Your task to perform on an android device: Open calendar and show me the second week of next month Image 0: 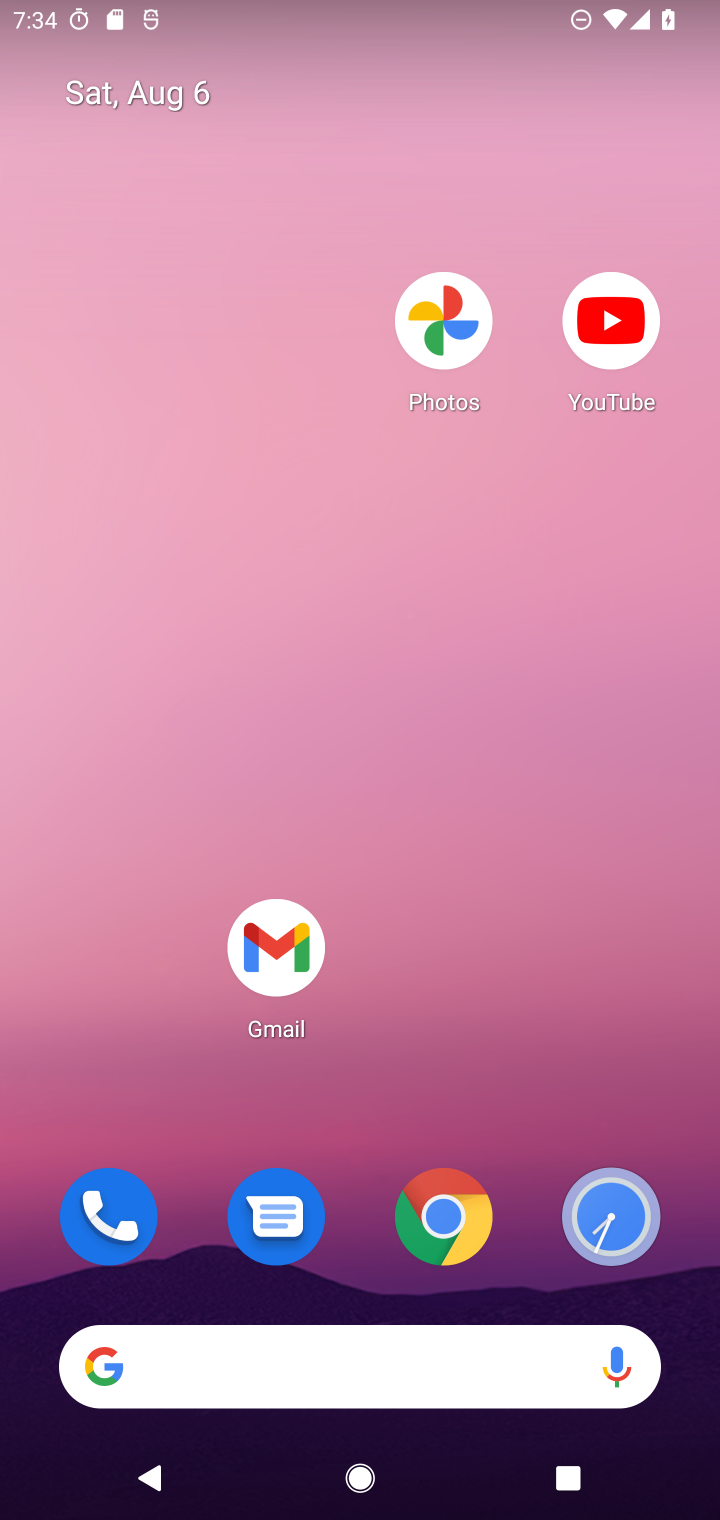
Step 0: drag from (506, 929) to (416, 40)
Your task to perform on an android device: Open calendar and show me the second week of next month Image 1: 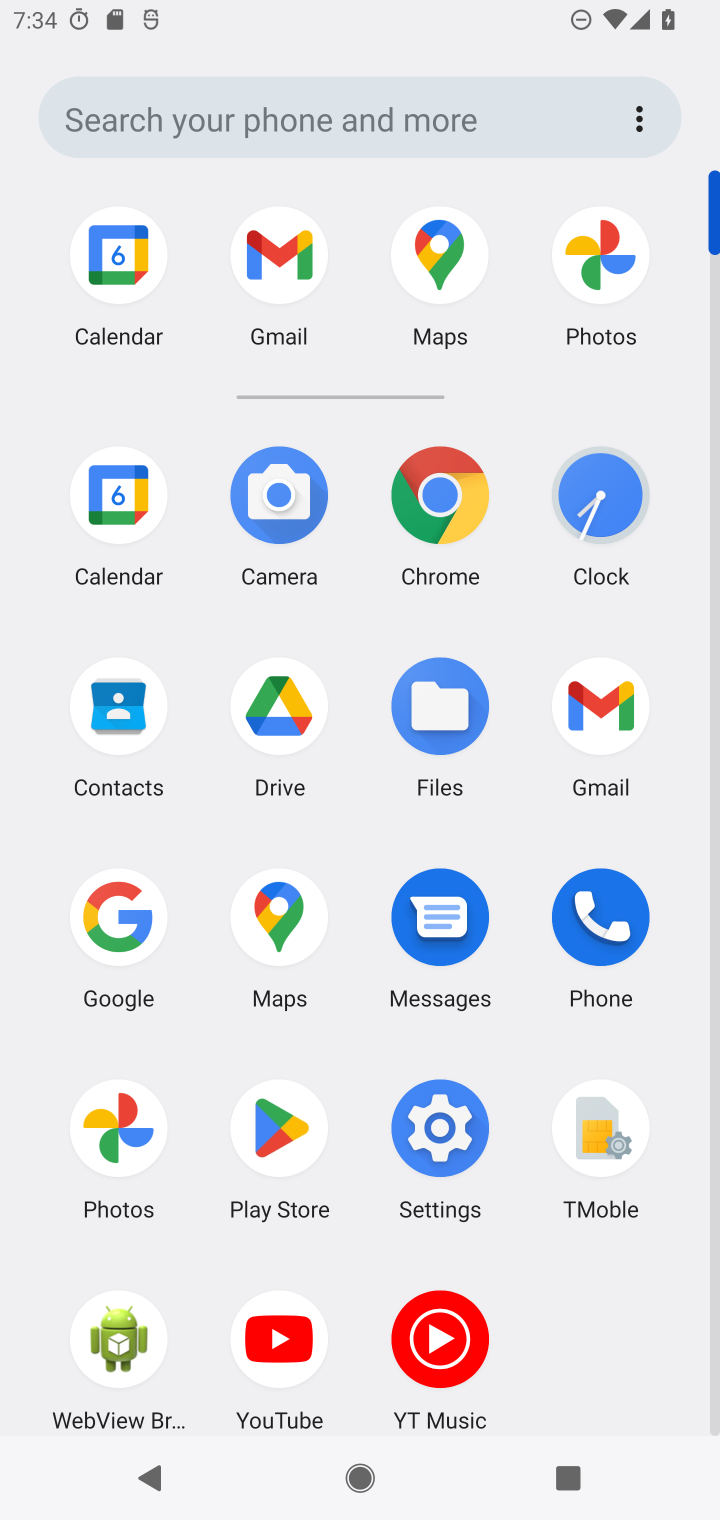
Step 1: click (116, 497)
Your task to perform on an android device: Open calendar and show me the second week of next month Image 2: 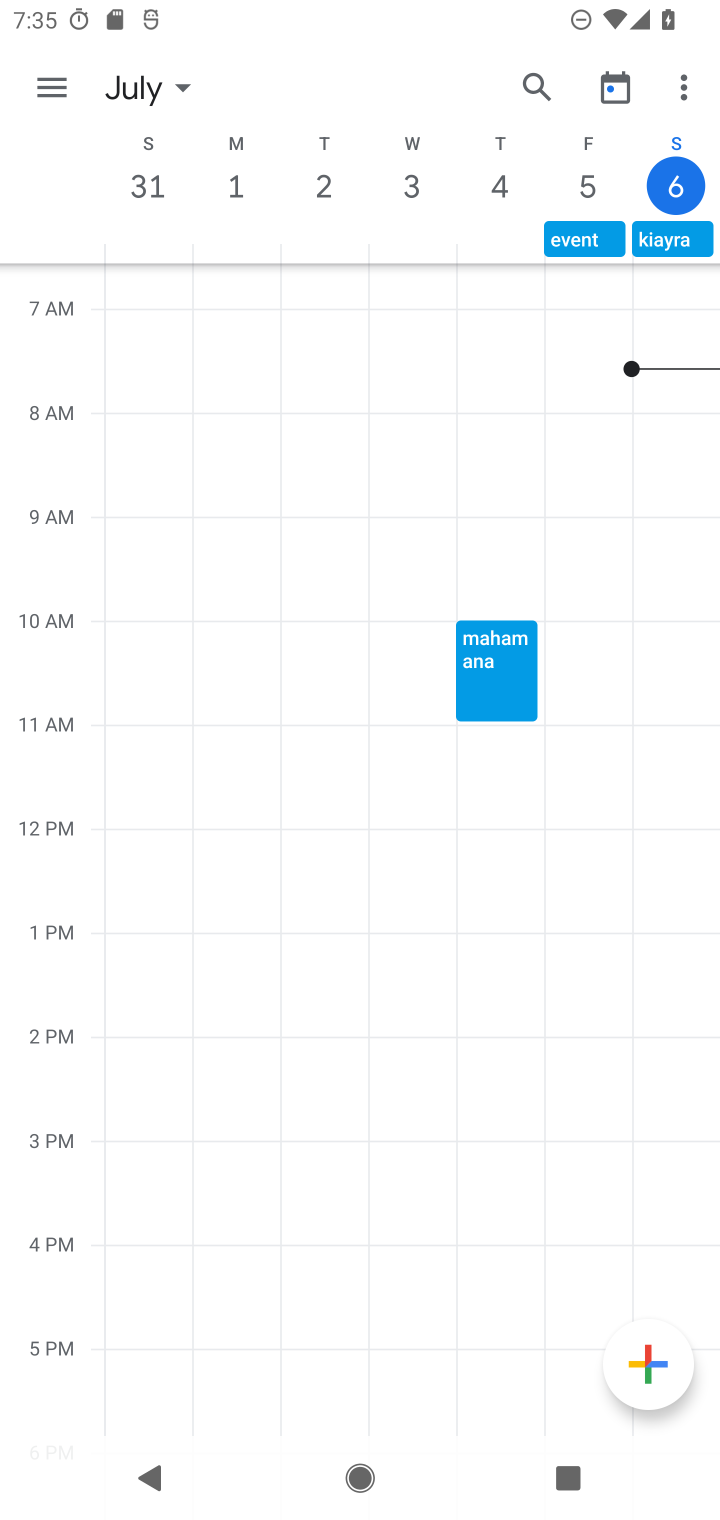
Step 2: drag from (646, 165) to (276, 143)
Your task to perform on an android device: Open calendar and show me the second week of next month Image 3: 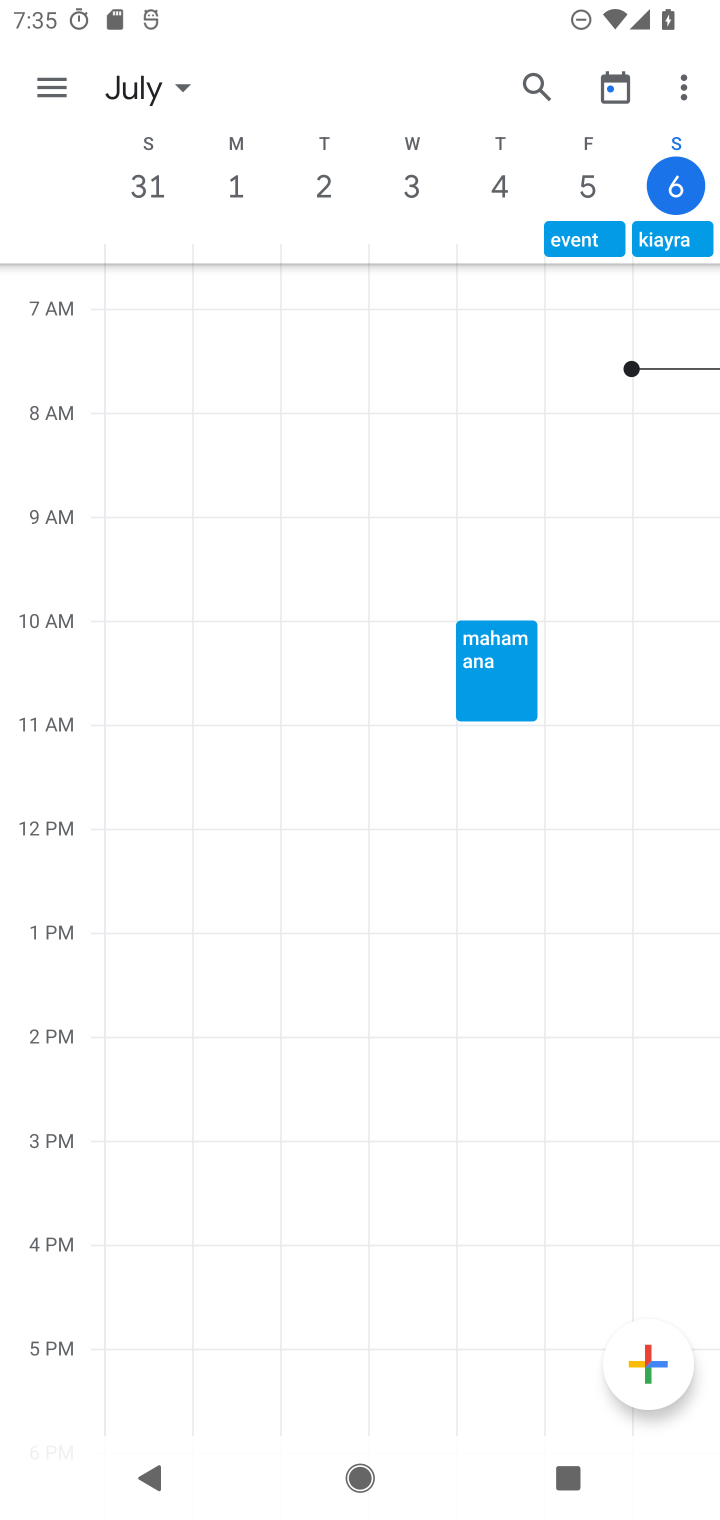
Step 3: click (145, 74)
Your task to perform on an android device: Open calendar and show me the second week of next month Image 4: 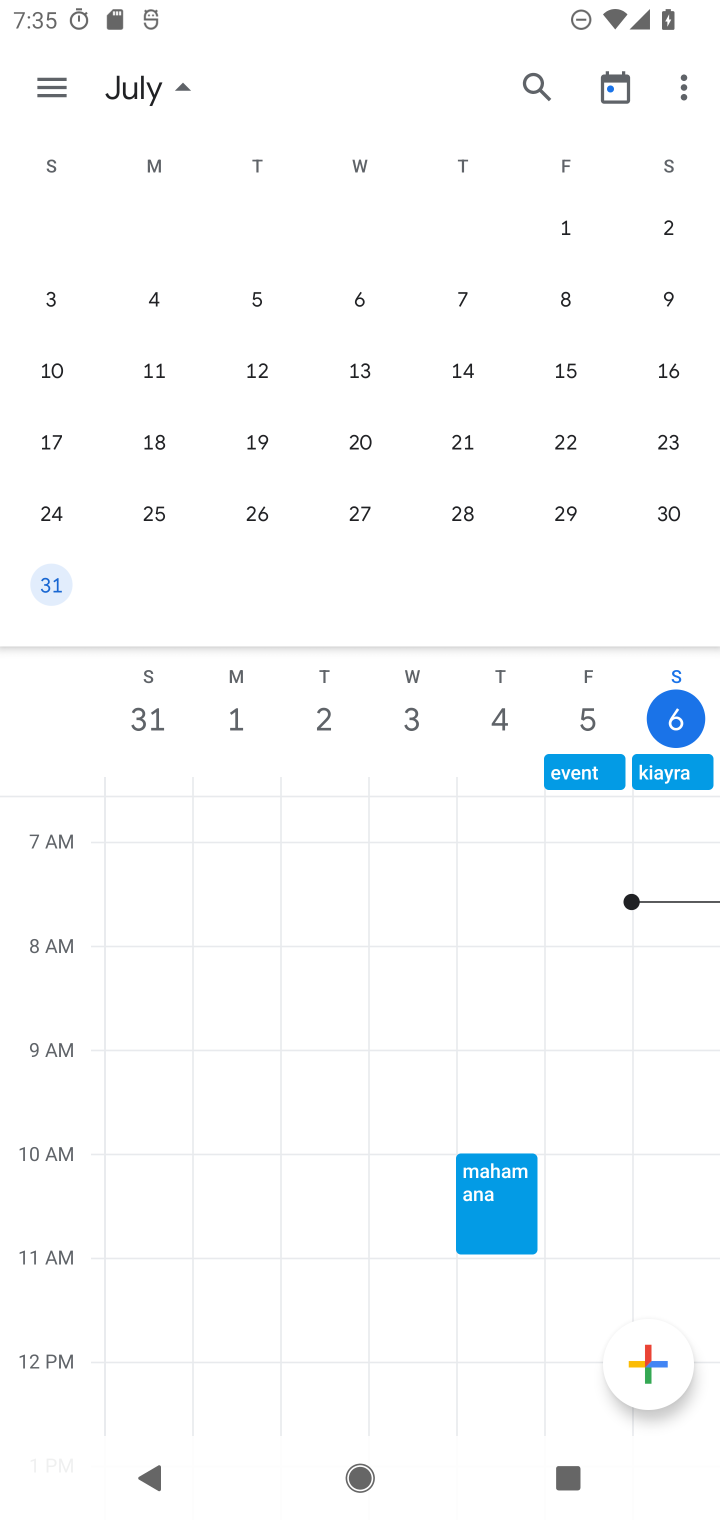
Step 4: drag from (605, 487) to (108, 467)
Your task to perform on an android device: Open calendar and show me the second week of next month Image 5: 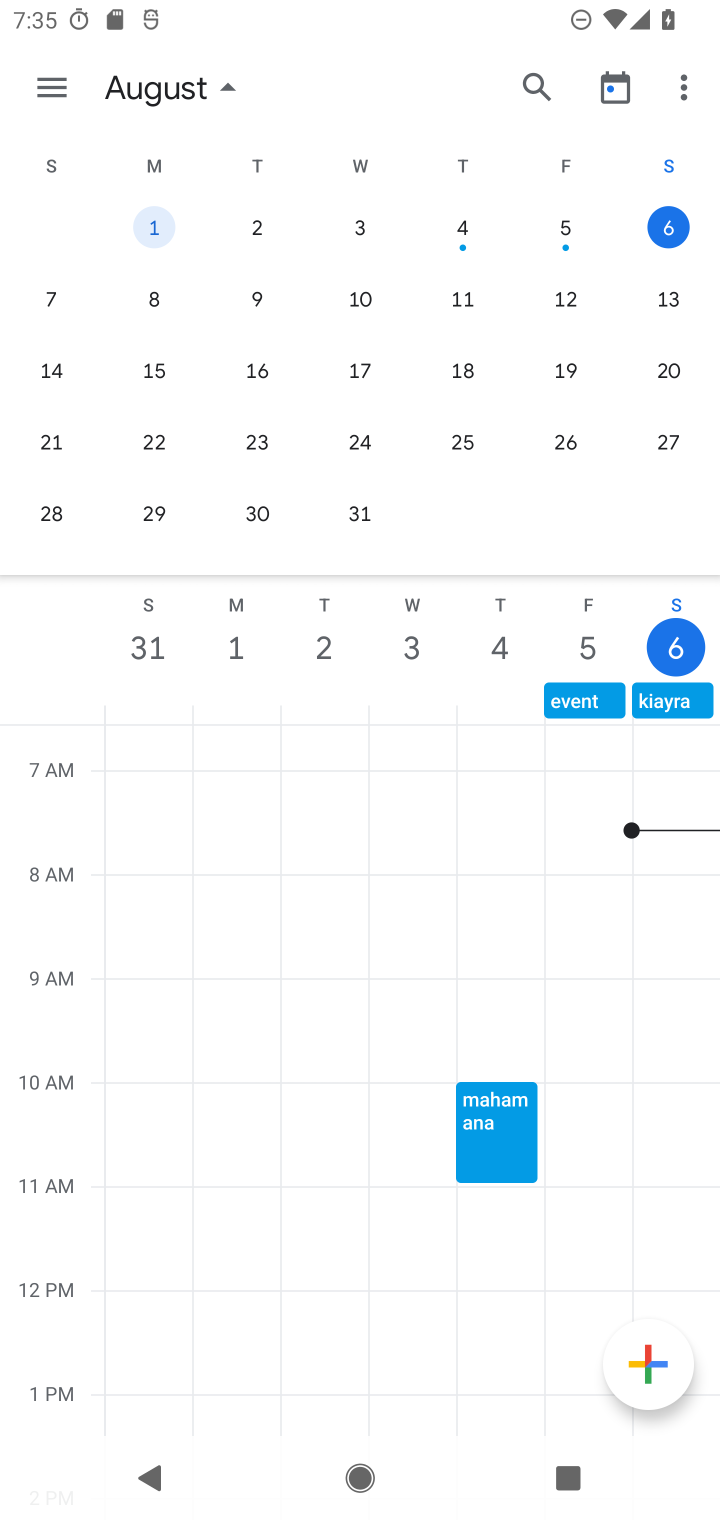
Step 5: drag from (655, 495) to (140, 415)
Your task to perform on an android device: Open calendar and show me the second week of next month Image 6: 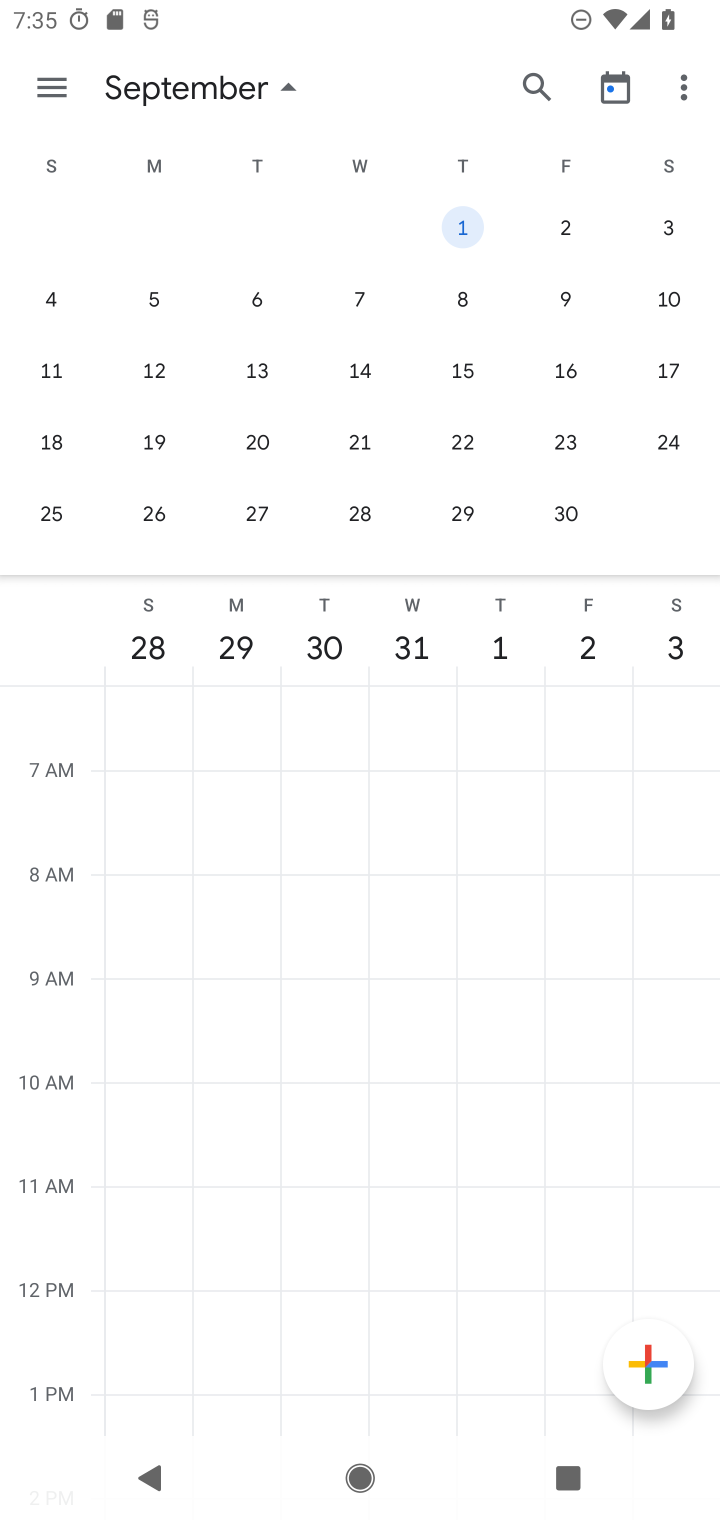
Step 6: click (52, 361)
Your task to perform on an android device: Open calendar and show me the second week of next month Image 7: 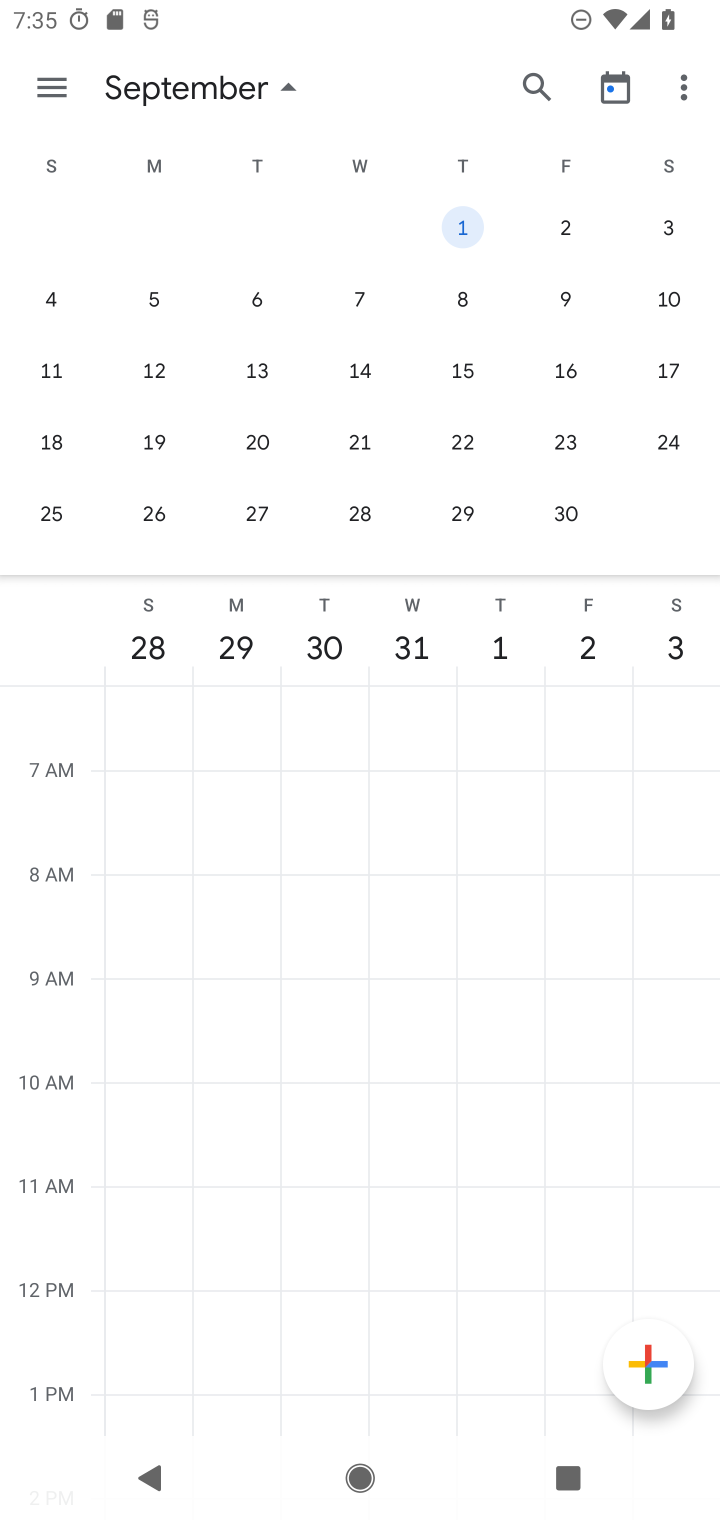
Step 7: click (244, 370)
Your task to perform on an android device: Open calendar and show me the second week of next month Image 8: 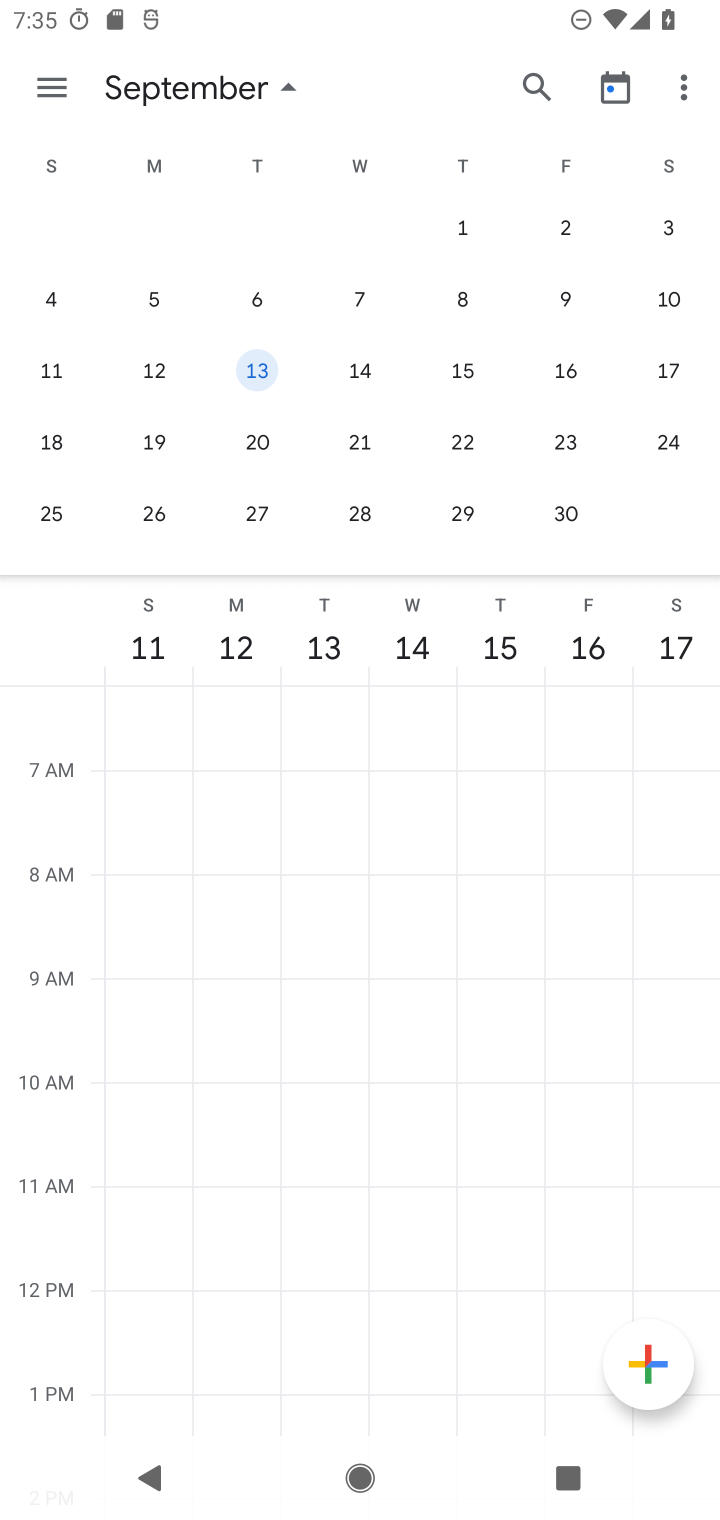
Step 8: task complete